Your task to perform on an android device: Do I have any events today? Image 0: 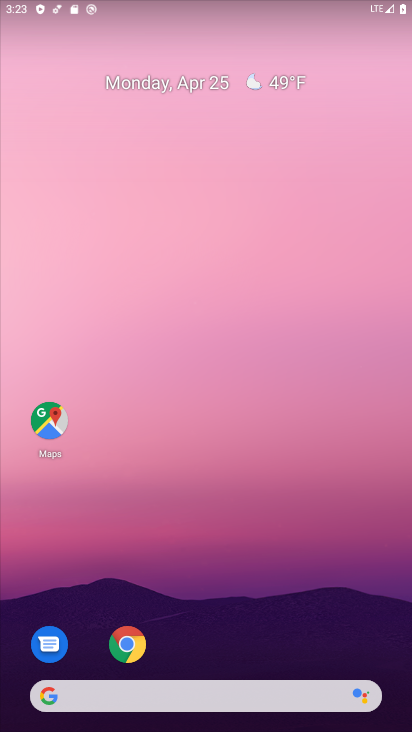
Step 0: drag from (317, 641) to (298, 384)
Your task to perform on an android device: Do I have any events today? Image 1: 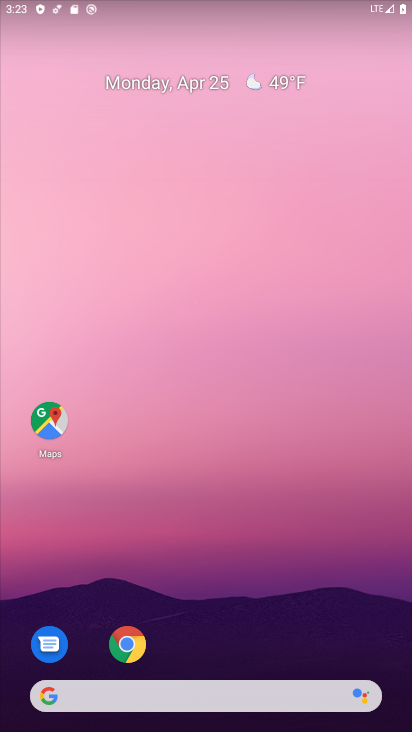
Step 1: drag from (217, 631) to (220, 174)
Your task to perform on an android device: Do I have any events today? Image 2: 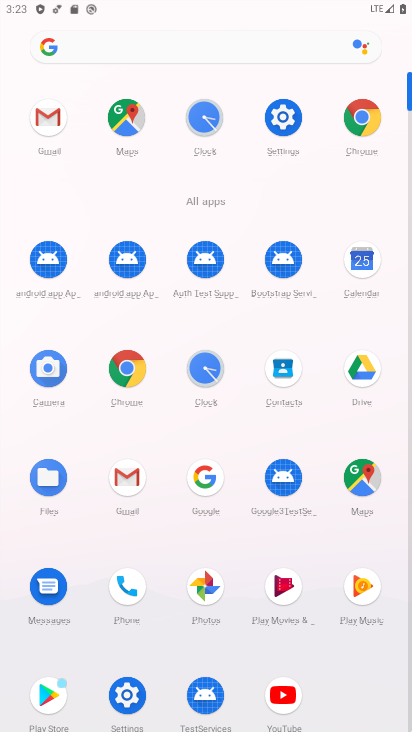
Step 2: click (360, 257)
Your task to perform on an android device: Do I have any events today? Image 3: 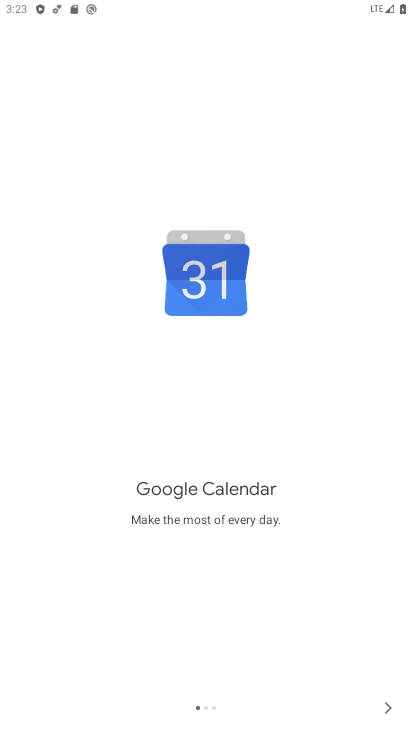
Step 3: click (391, 707)
Your task to perform on an android device: Do I have any events today? Image 4: 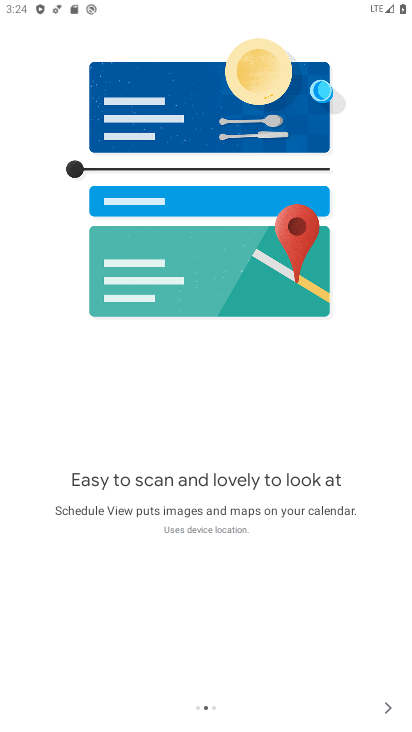
Step 4: click (374, 708)
Your task to perform on an android device: Do I have any events today? Image 5: 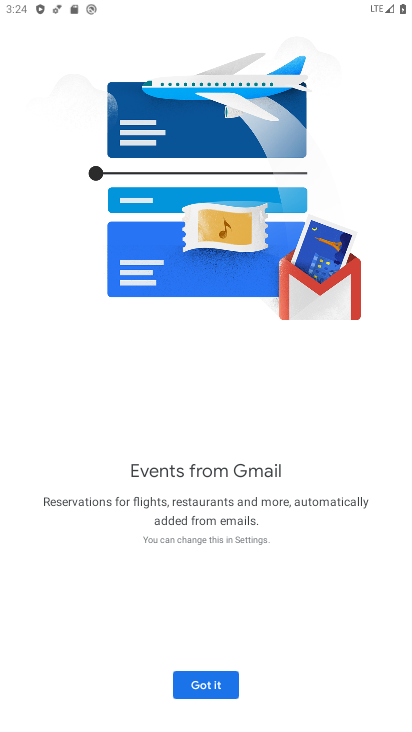
Step 5: press home button
Your task to perform on an android device: Do I have any events today? Image 6: 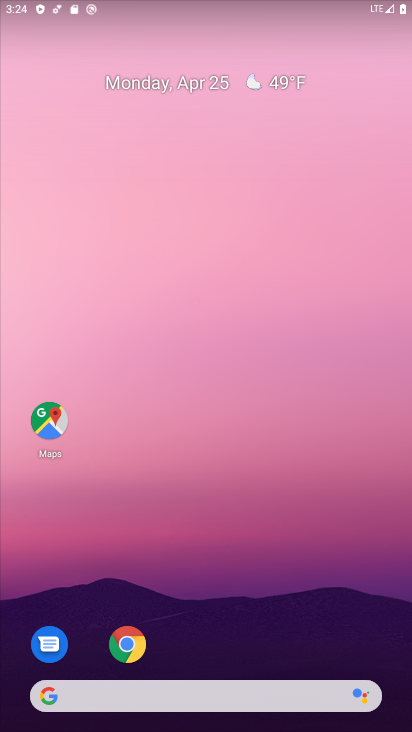
Step 6: drag from (236, 636) to (213, 142)
Your task to perform on an android device: Do I have any events today? Image 7: 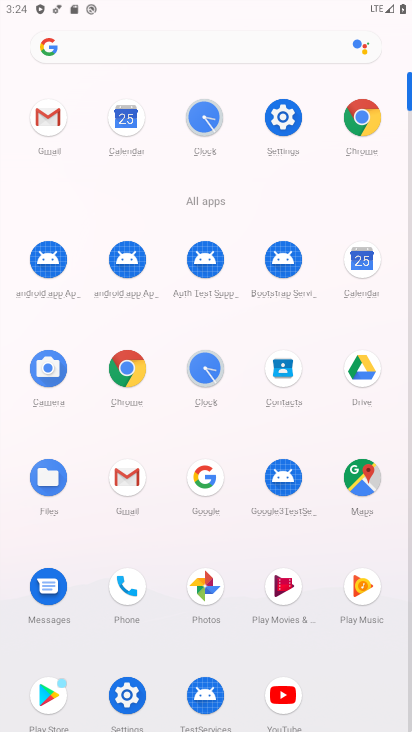
Step 7: click (355, 276)
Your task to perform on an android device: Do I have any events today? Image 8: 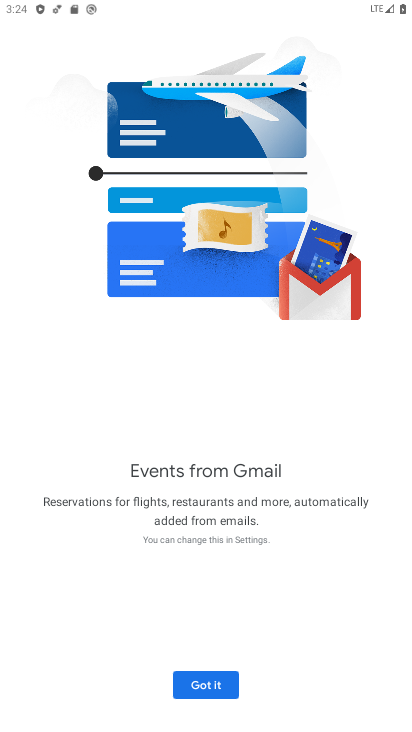
Step 8: task complete